Your task to perform on an android device: open app "Chime – Mobile Banking" Image 0: 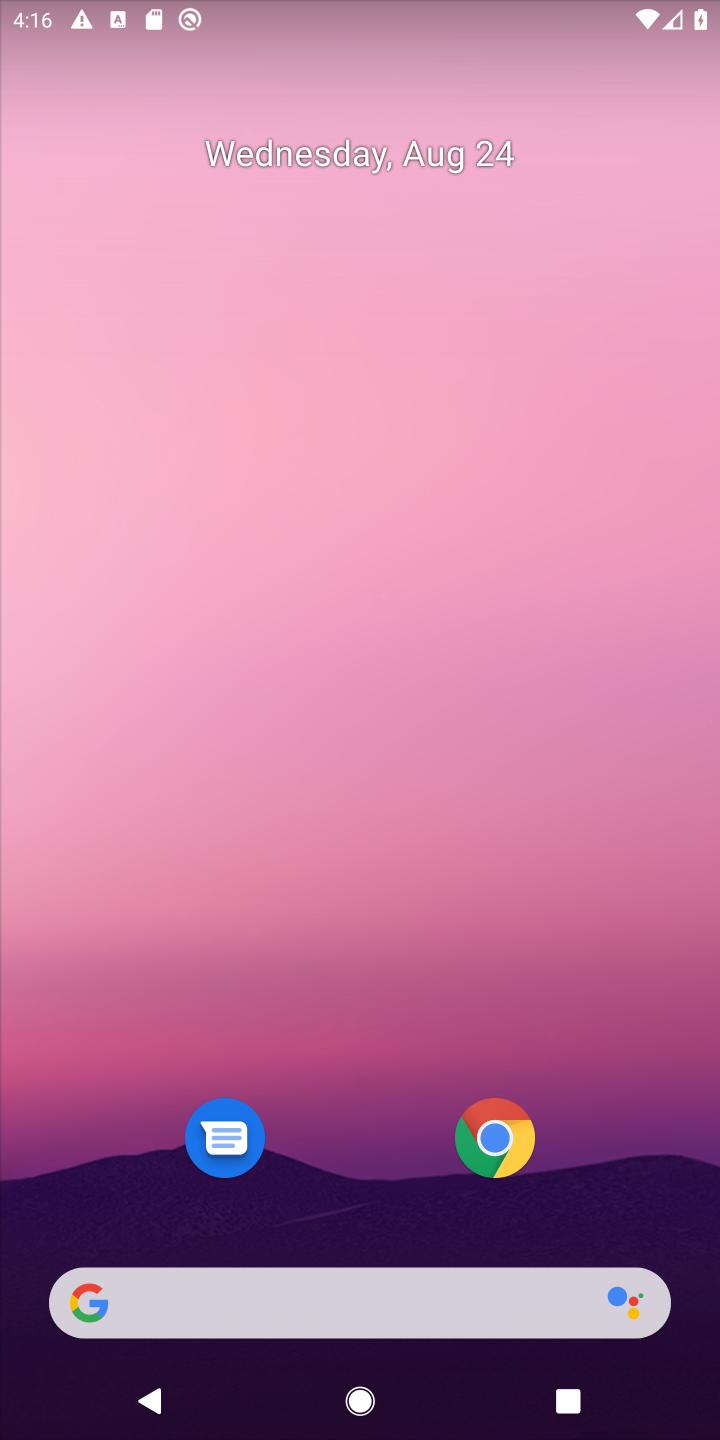
Step 0: drag from (353, 1217) to (344, 66)
Your task to perform on an android device: open app "Chime – Mobile Banking" Image 1: 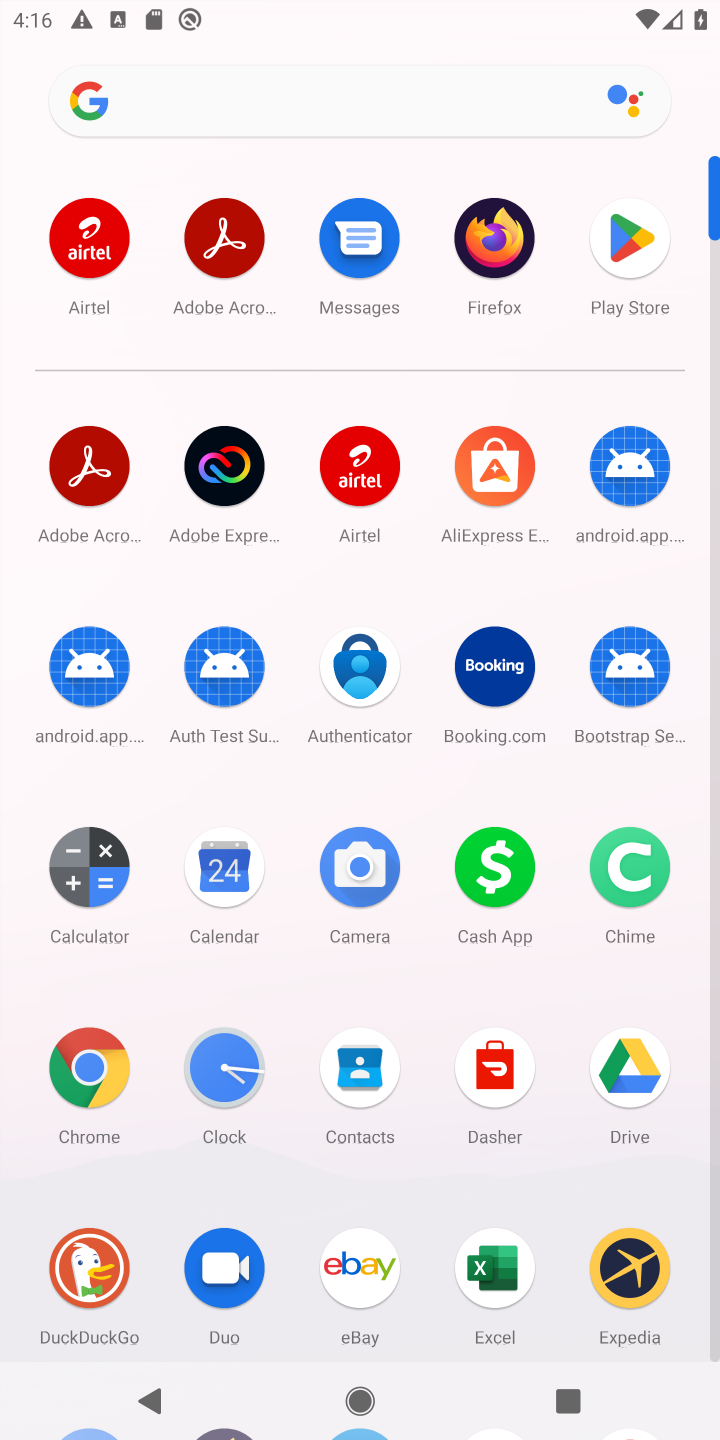
Step 1: click (625, 246)
Your task to perform on an android device: open app "Chime – Mobile Banking" Image 2: 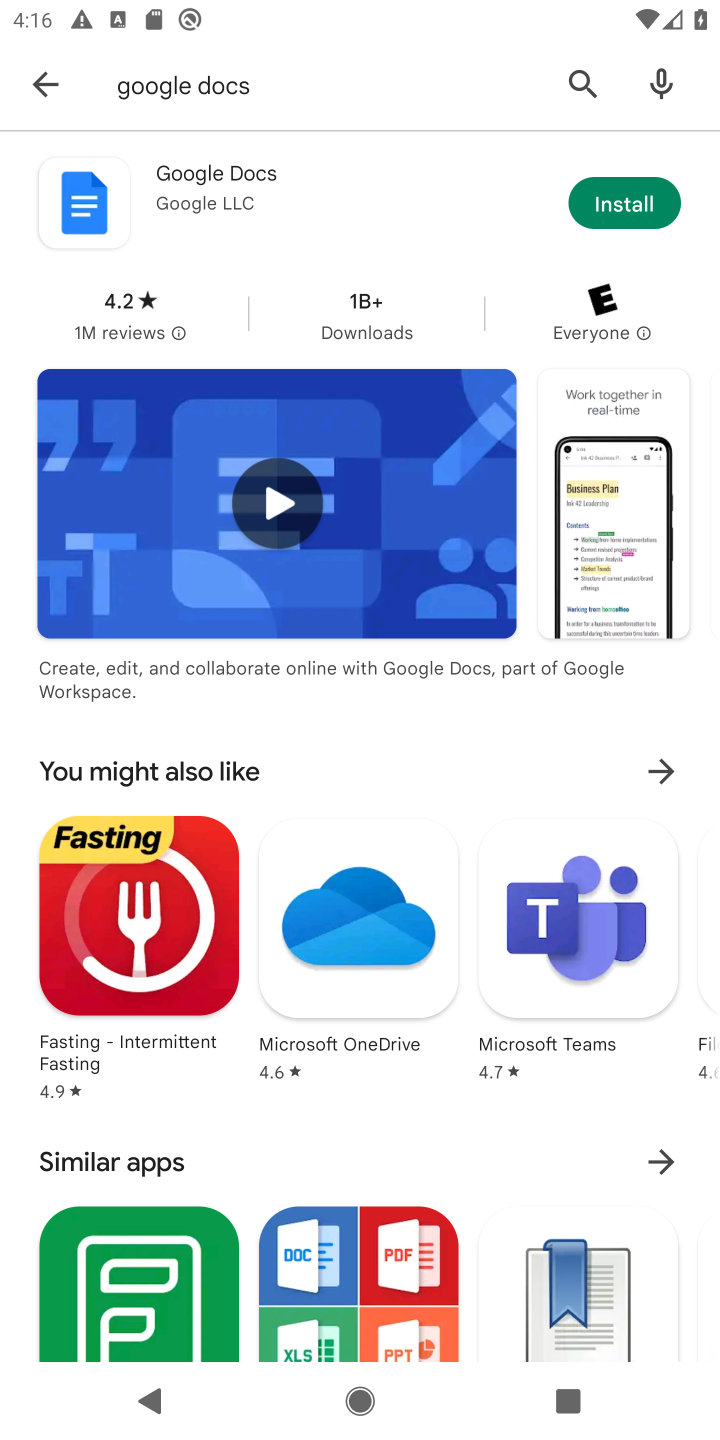
Step 2: click (583, 80)
Your task to perform on an android device: open app "Chime – Mobile Banking" Image 3: 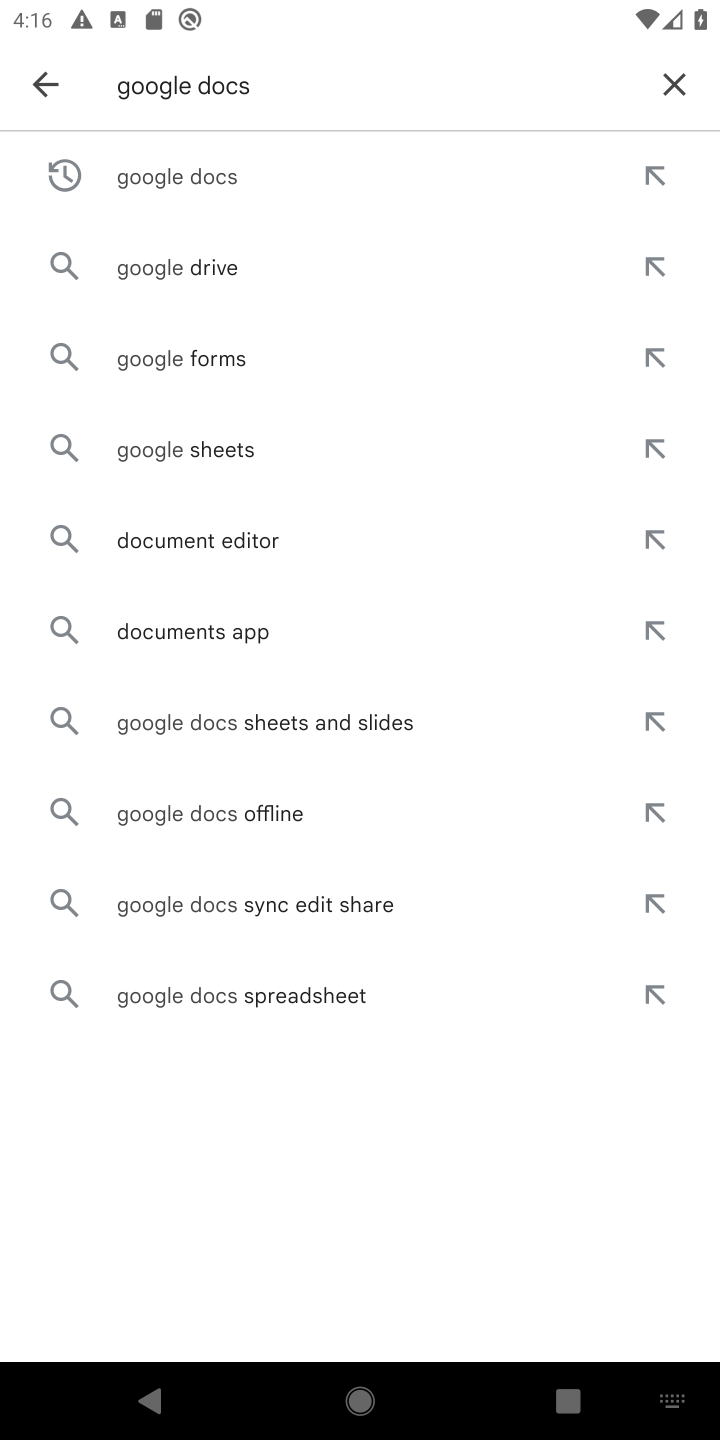
Step 3: click (675, 79)
Your task to perform on an android device: open app "Chime – Mobile Banking" Image 4: 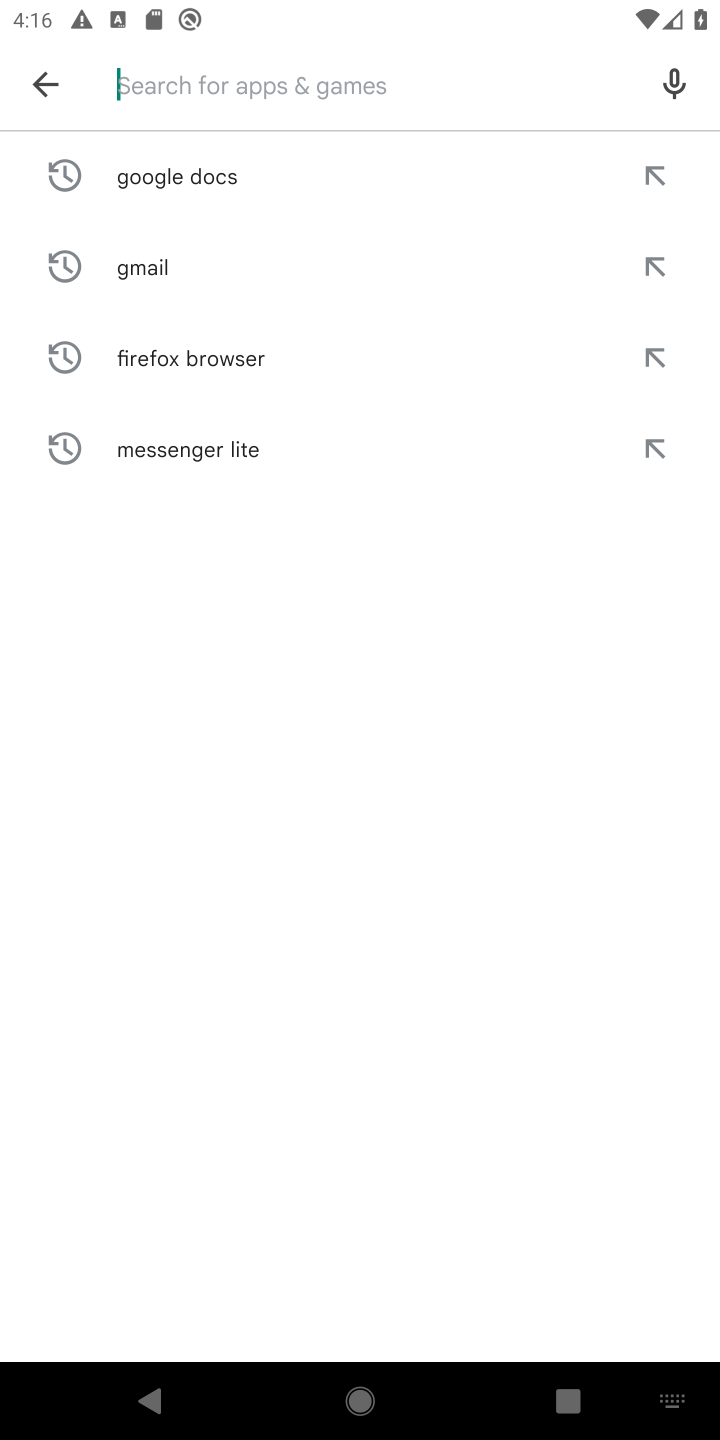
Step 4: type "Chime – Mobile Banking"
Your task to perform on an android device: open app "Chime – Mobile Banking" Image 5: 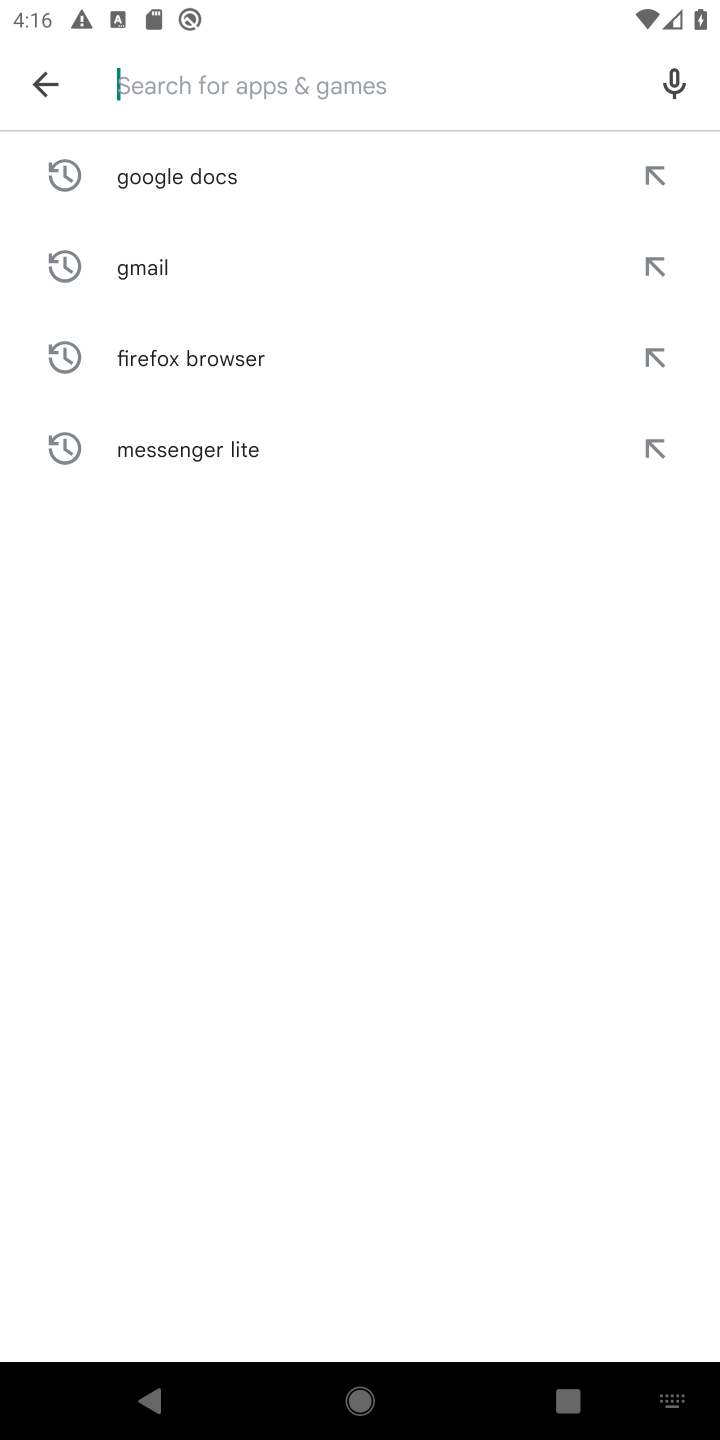
Step 5: type "Chime – Mobile Banking"
Your task to perform on an android device: open app "Chime – Mobile Banking" Image 6: 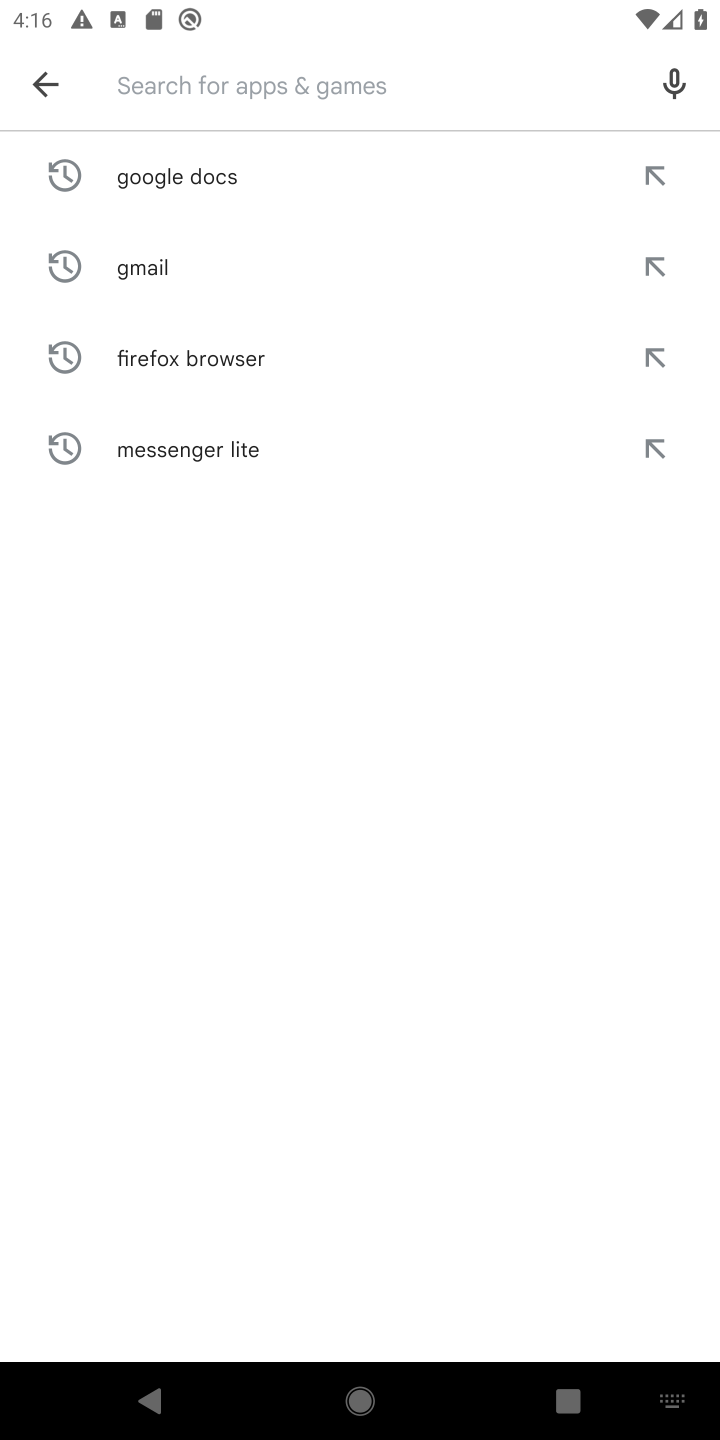
Step 6: type ""
Your task to perform on an android device: open app "Chime – Mobile Banking" Image 7: 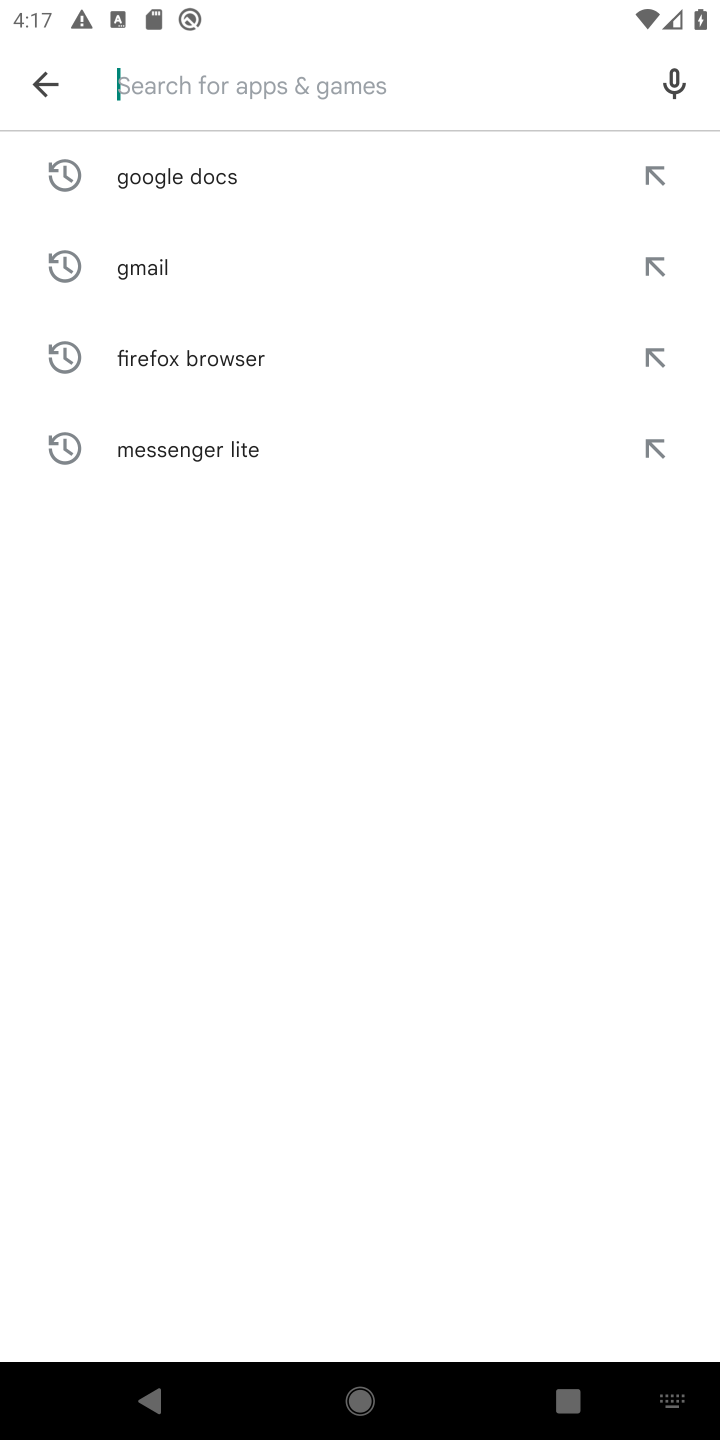
Step 7: type "Chime"
Your task to perform on an android device: open app "Chime – Mobile Banking" Image 8: 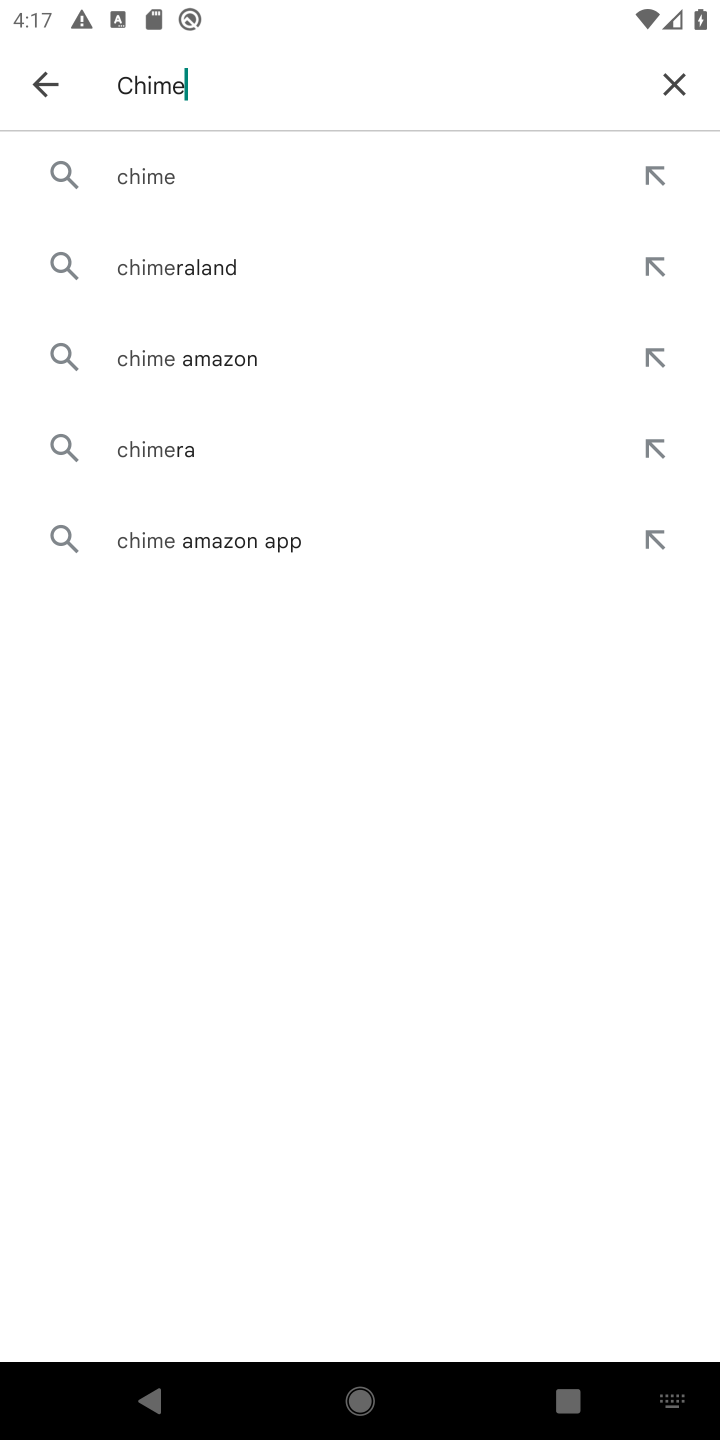
Step 8: click (103, 171)
Your task to perform on an android device: open app "Chime – Mobile Banking" Image 9: 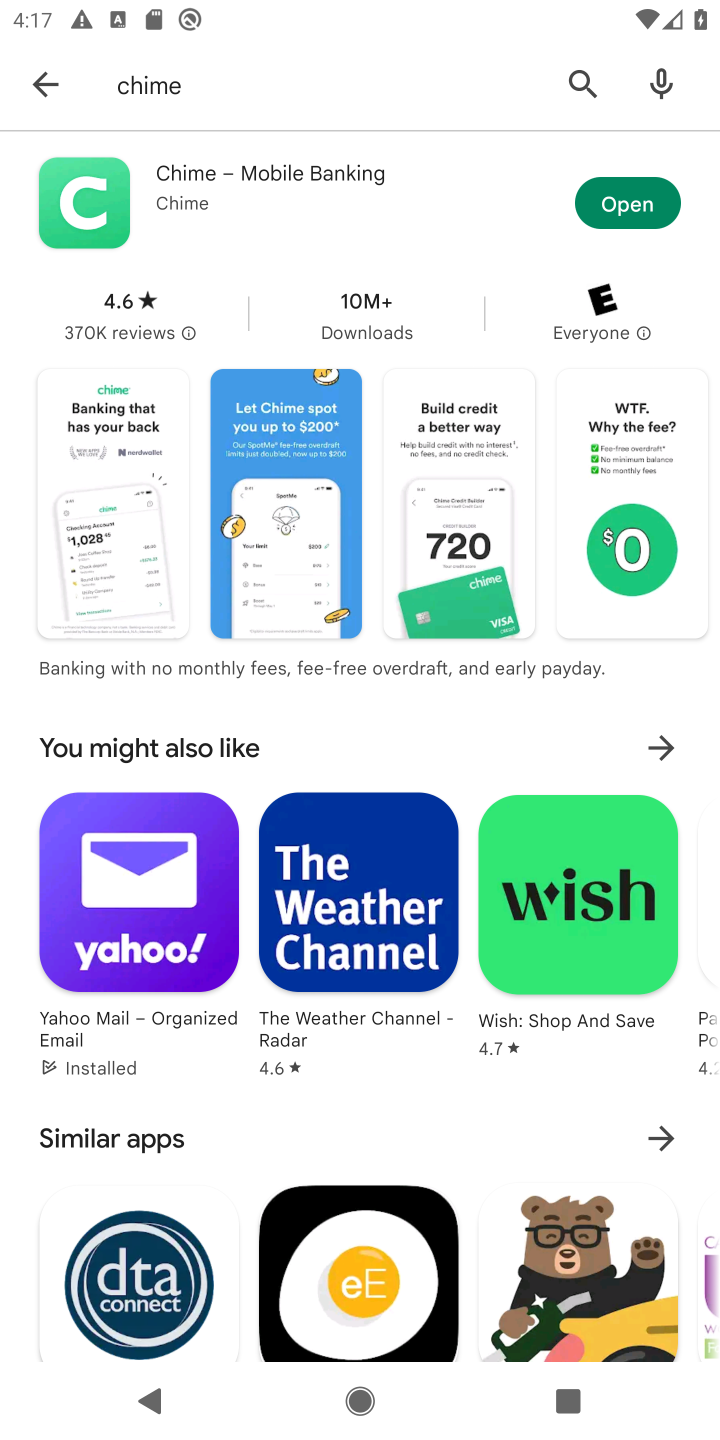
Step 9: click (632, 208)
Your task to perform on an android device: open app "Chime – Mobile Banking" Image 10: 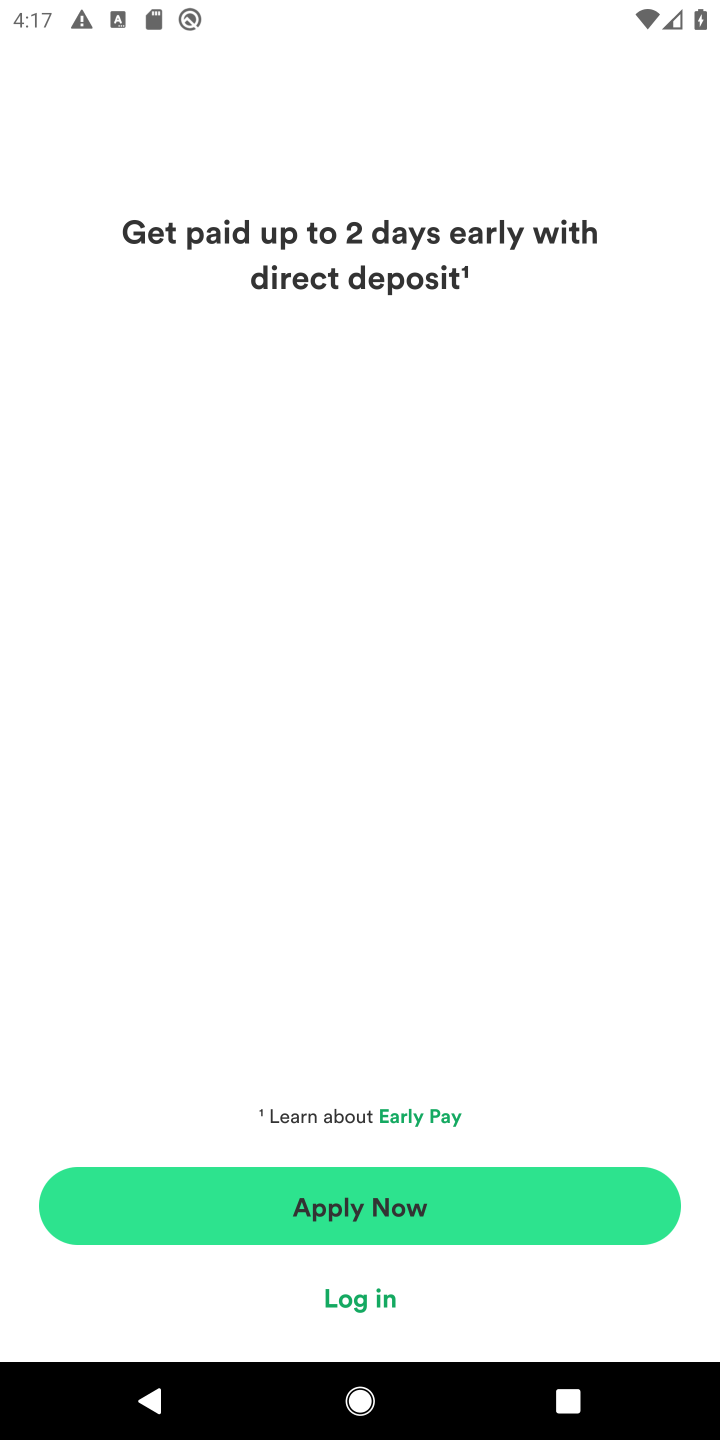
Step 10: task complete